Your task to perform on an android device: Open a new incognito tab in Chrome Image 0: 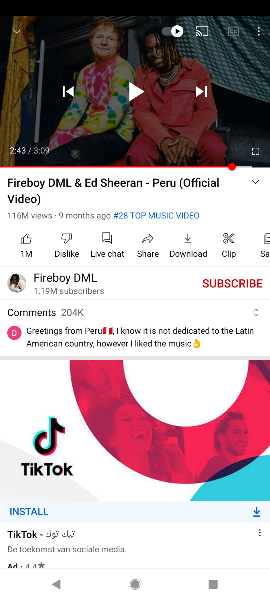
Step 0: press home button
Your task to perform on an android device: Open a new incognito tab in Chrome Image 1: 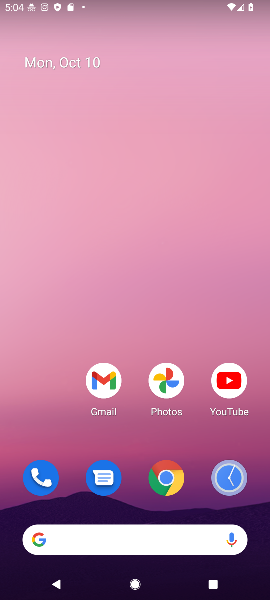
Step 1: click (170, 474)
Your task to perform on an android device: Open a new incognito tab in Chrome Image 2: 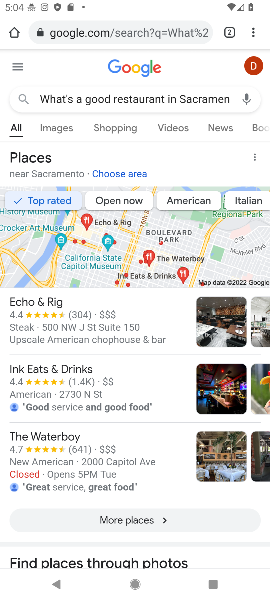
Step 2: click (260, 29)
Your task to perform on an android device: Open a new incognito tab in Chrome Image 3: 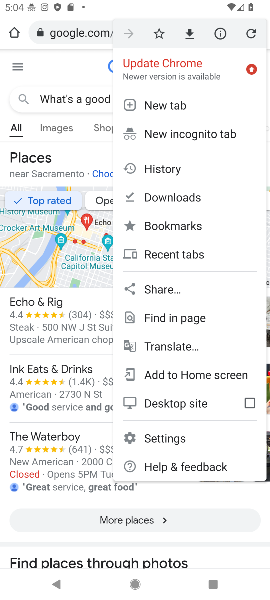
Step 3: click (172, 141)
Your task to perform on an android device: Open a new incognito tab in Chrome Image 4: 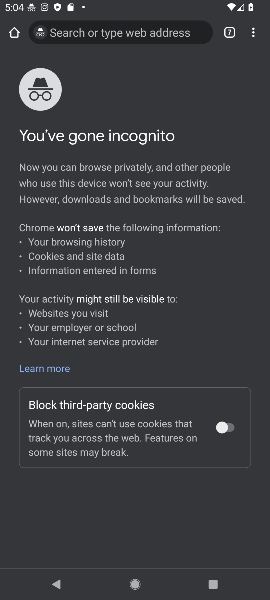
Step 4: task complete